Your task to perform on an android device: Do I have any events today? Image 0: 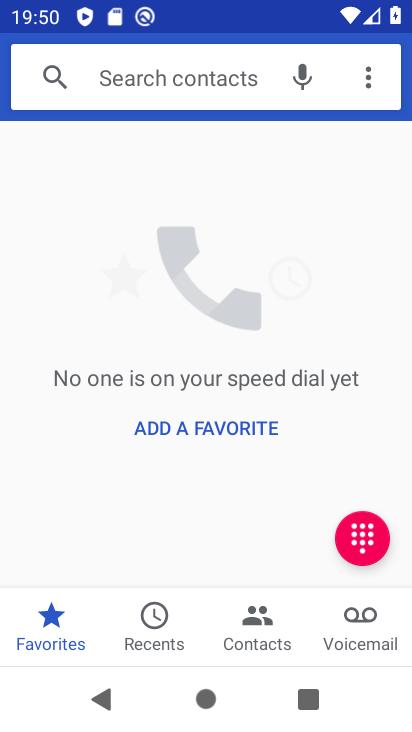
Step 0: press home button
Your task to perform on an android device: Do I have any events today? Image 1: 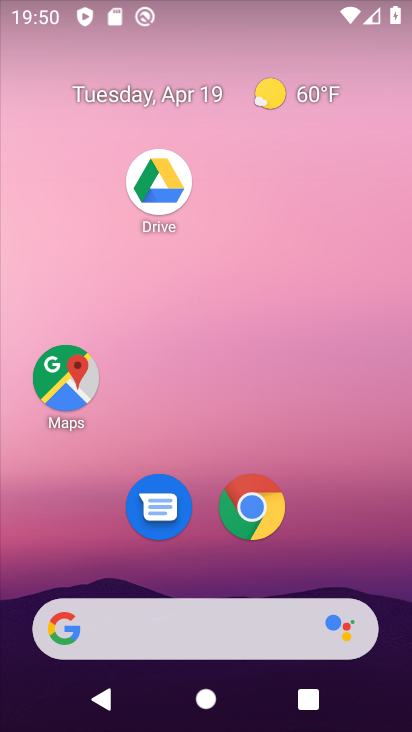
Step 1: drag from (306, 493) to (326, 118)
Your task to perform on an android device: Do I have any events today? Image 2: 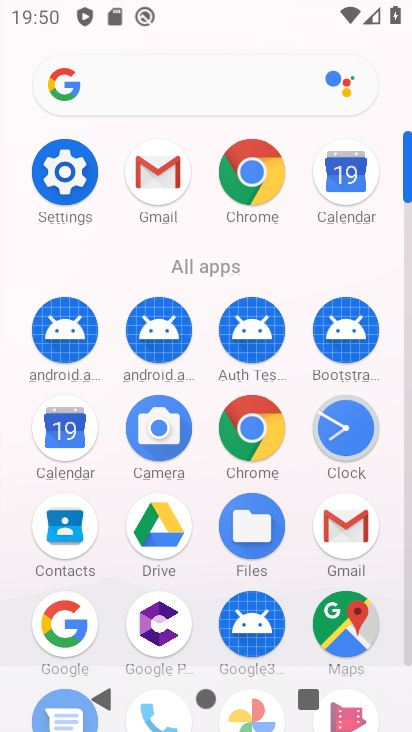
Step 2: click (343, 167)
Your task to perform on an android device: Do I have any events today? Image 3: 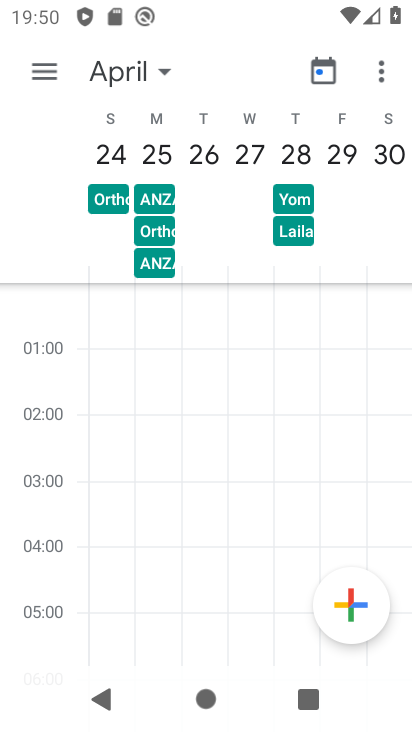
Step 3: task complete